Your task to perform on an android device: Open accessibility settings Image 0: 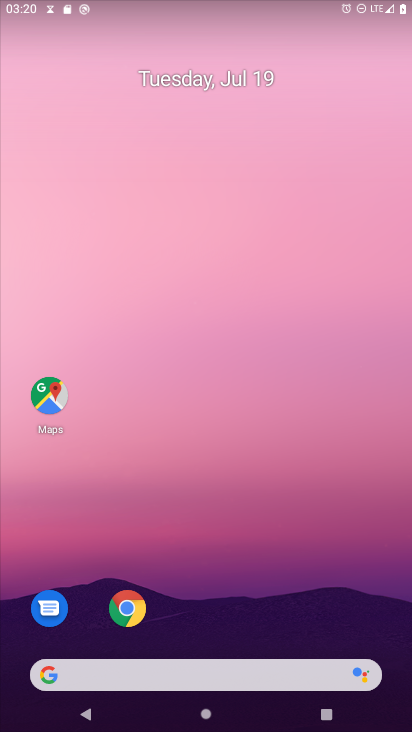
Step 0: drag from (309, 590) to (349, 1)
Your task to perform on an android device: Open accessibility settings Image 1: 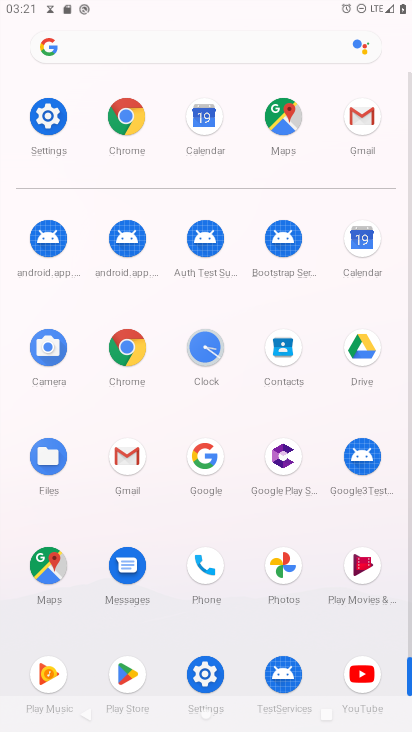
Step 1: click (48, 112)
Your task to perform on an android device: Open accessibility settings Image 2: 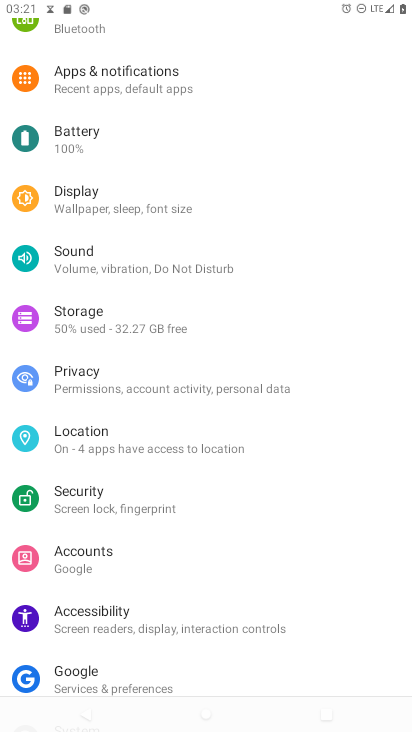
Step 2: click (119, 623)
Your task to perform on an android device: Open accessibility settings Image 3: 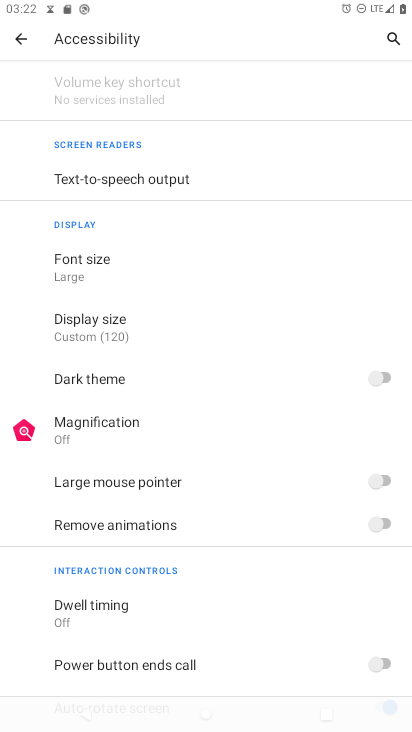
Step 3: press back button
Your task to perform on an android device: Open accessibility settings Image 4: 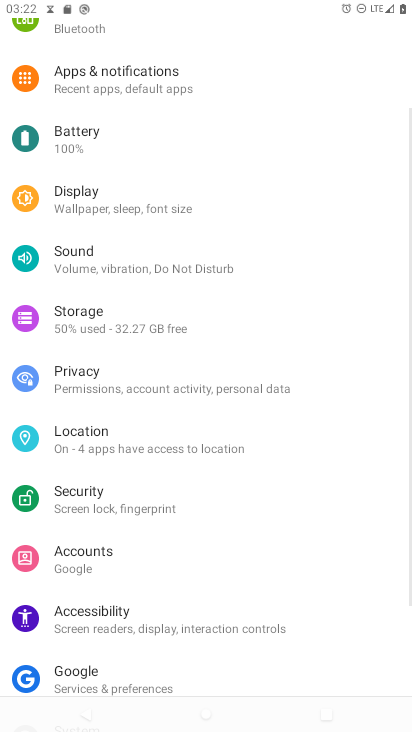
Step 4: click (117, 621)
Your task to perform on an android device: Open accessibility settings Image 5: 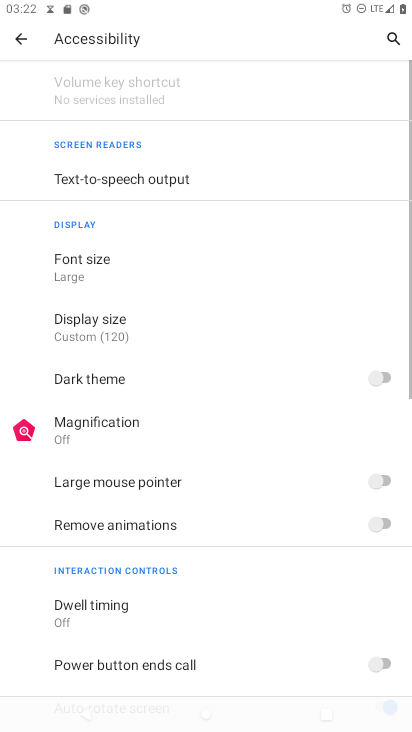
Step 5: task complete